Your task to perform on an android device: turn off smart reply in the gmail app Image 0: 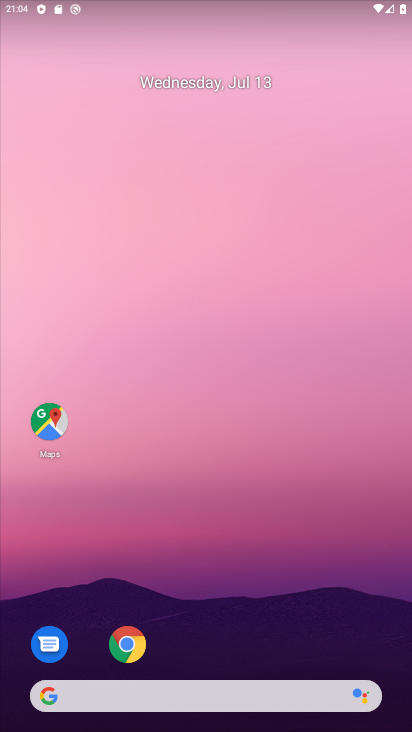
Step 0: drag from (252, 622) to (198, 229)
Your task to perform on an android device: turn off smart reply in the gmail app Image 1: 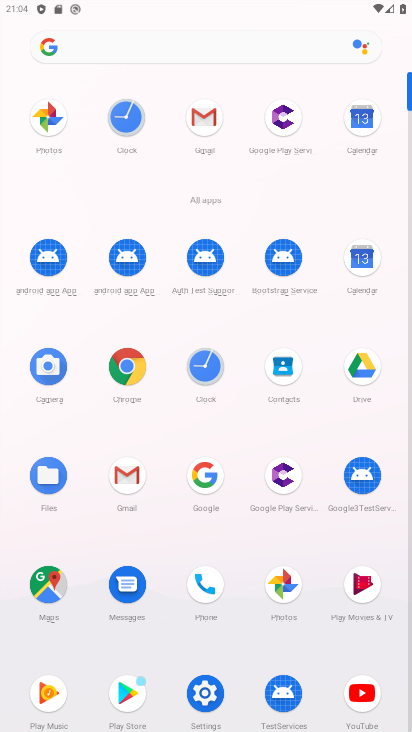
Step 1: click (205, 113)
Your task to perform on an android device: turn off smart reply in the gmail app Image 2: 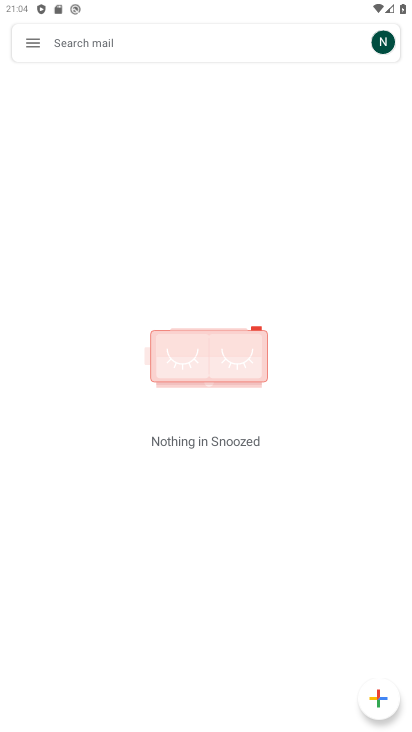
Step 2: click (30, 44)
Your task to perform on an android device: turn off smart reply in the gmail app Image 3: 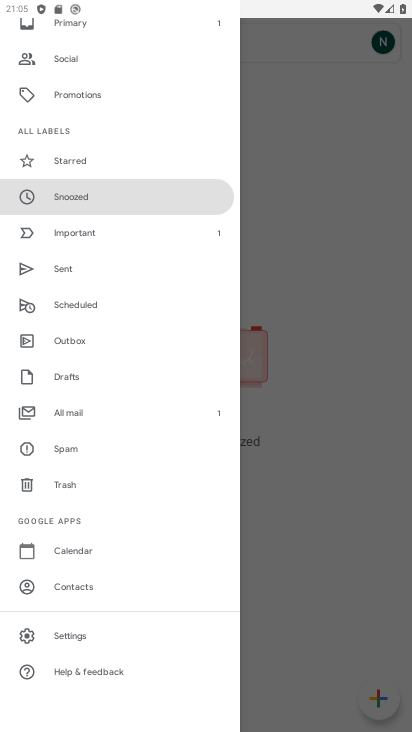
Step 3: click (117, 638)
Your task to perform on an android device: turn off smart reply in the gmail app Image 4: 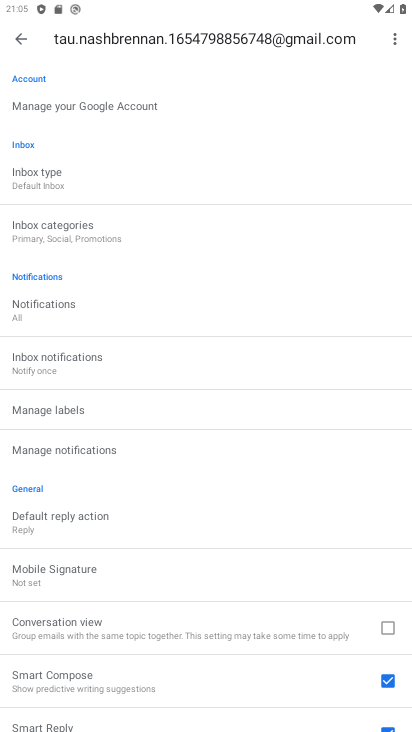
Step 4: drag from (274, 668) to (170, 325)
Your task to perform on an android device: turn off smart reply in the gmail app Image 5: 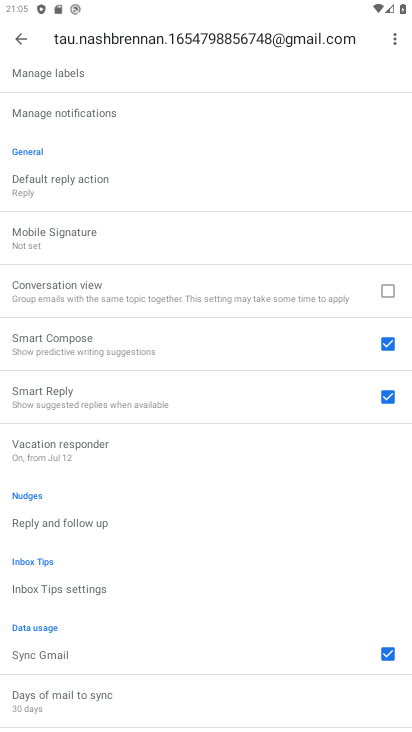
Step 5: click (389, 391)
Your task to perform on an android device: turn off smart reply in the gmail app Image 6: 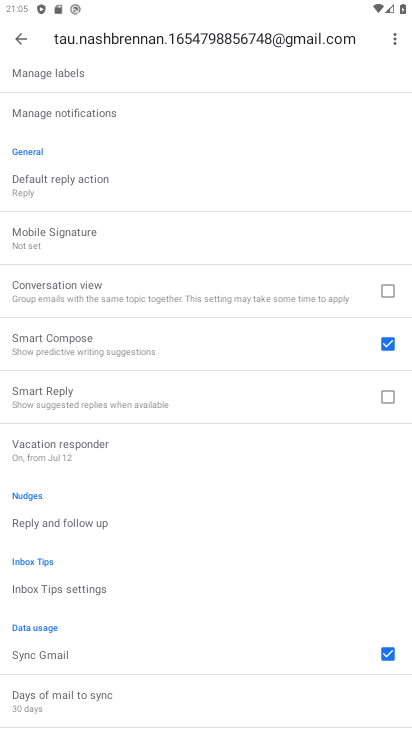
Step 6: task complete